Your task to perform on an android device: Toggle notifications for the Google Photos app Image 0: 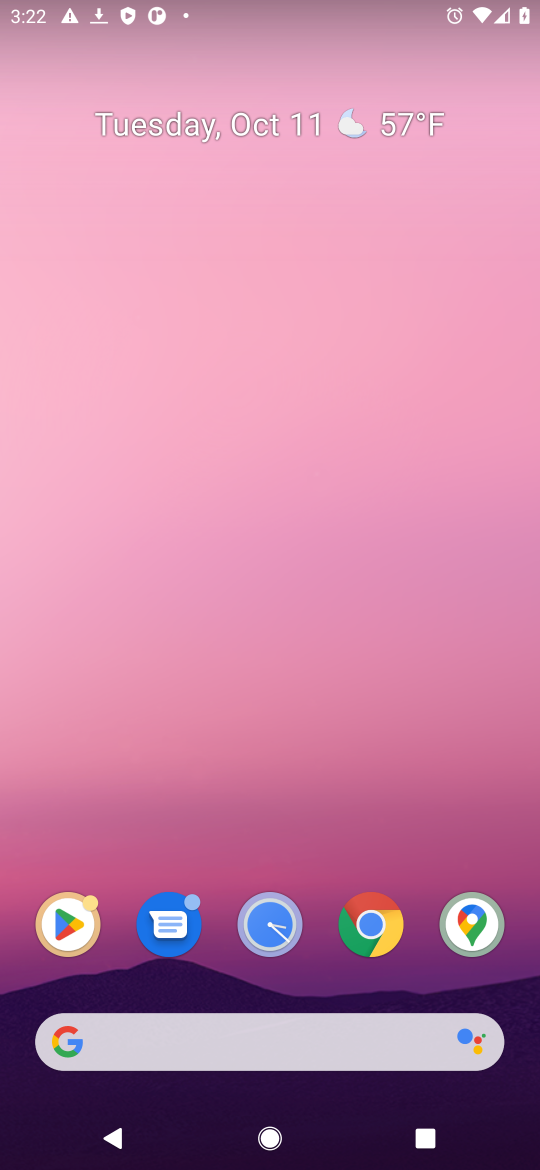
Step 0: drag from (326, 976) to (338, 16)
Your task to perform on an android device: Toggle notifications for the Google Photos app Image 1: 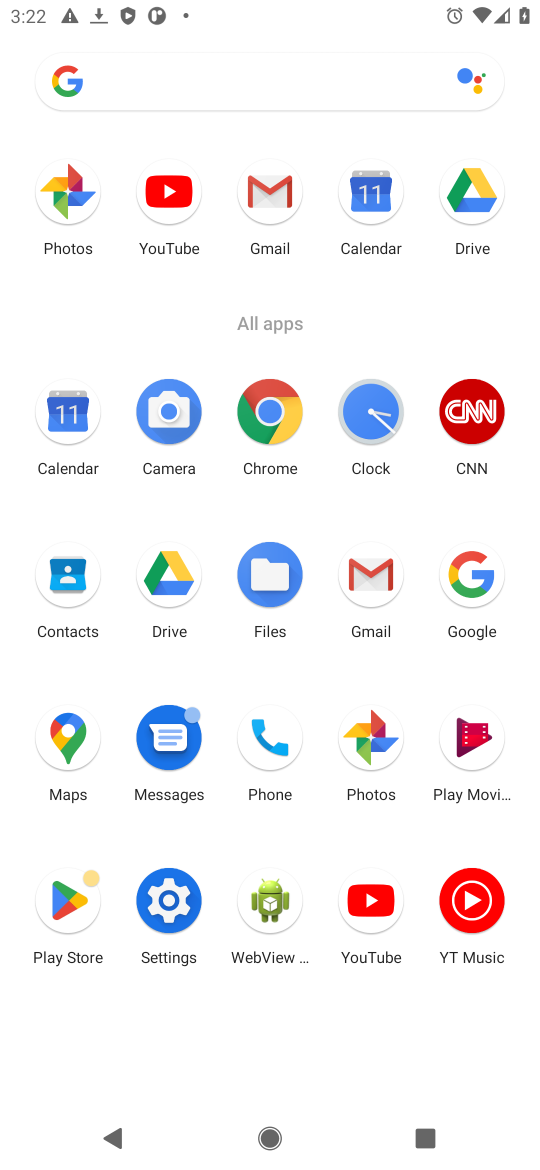
Step 1: click (375, 747)
Your task to perform on an android device: Toggle notifications for the Google Photos app Image 2: 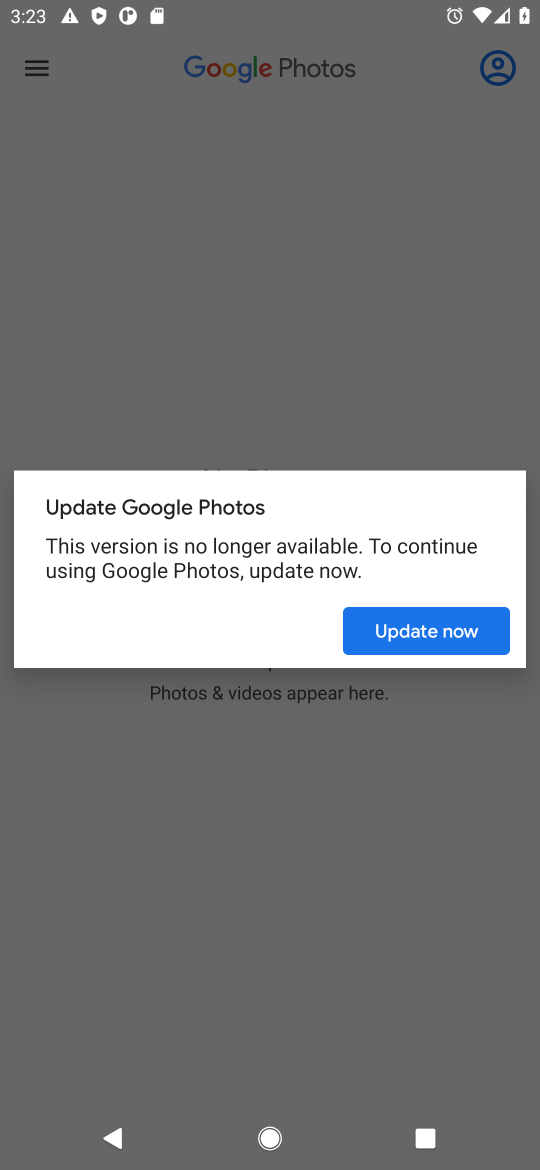
Step 2: press home button
Your task to perform on an android device: Toggle notifications for the Google Photos app Image 3: 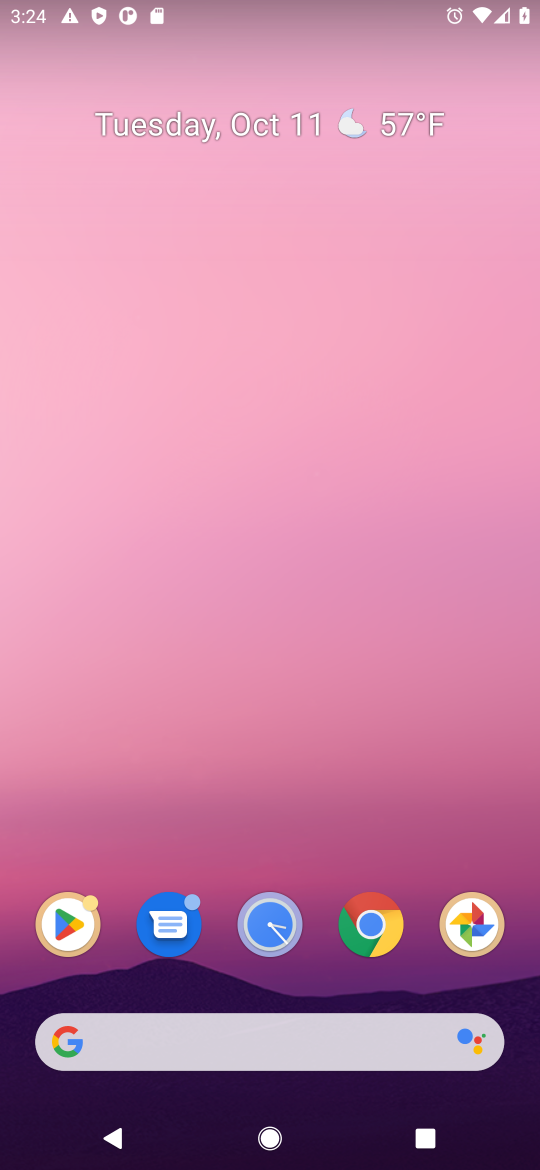
Step 3: drag from (334, 1006) to (374, 96)
Your task to perform on an android device: Toggle notifications for the Google Photos app Image 4: 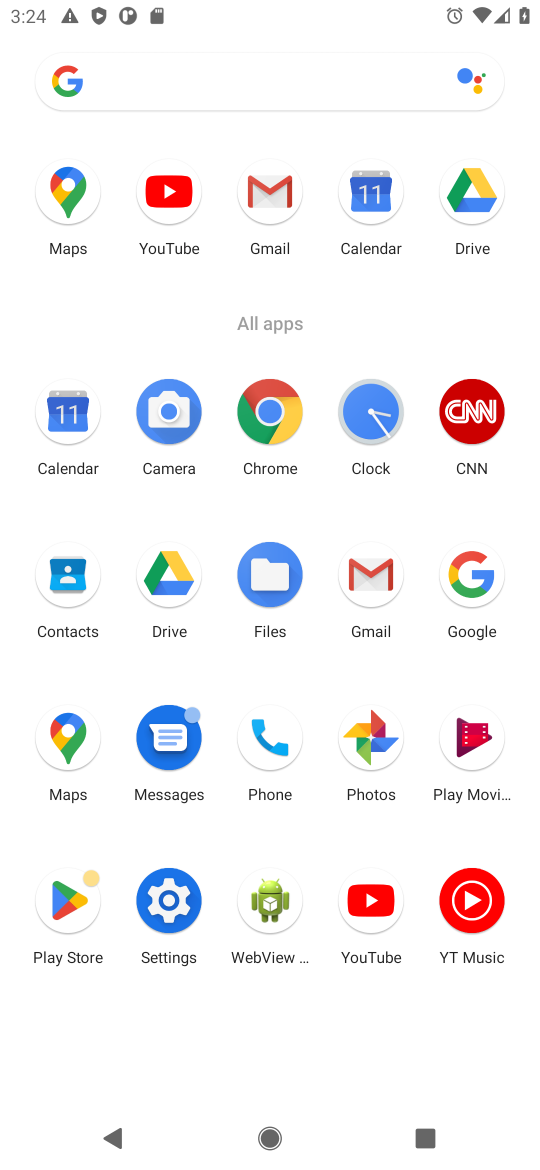
Step 4: click (373, 734)
Your task to perform on an android device: Toggle notifications for the Google Photos app Image 5: 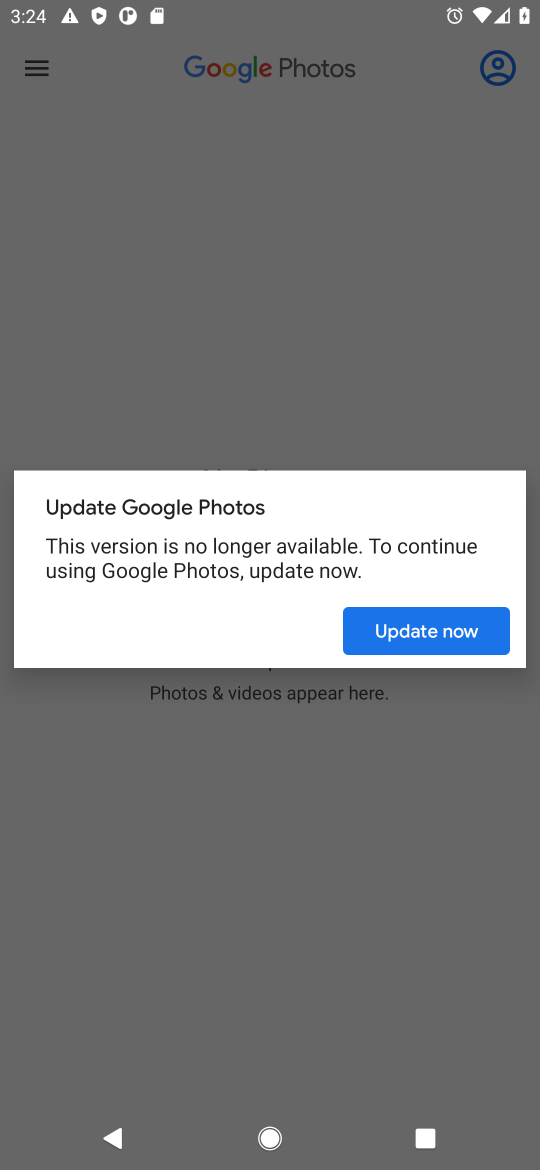
Step 5: click (281, 325)
Your task to perform on an android device: Toggle notifications for the Google Photos app Image 6: 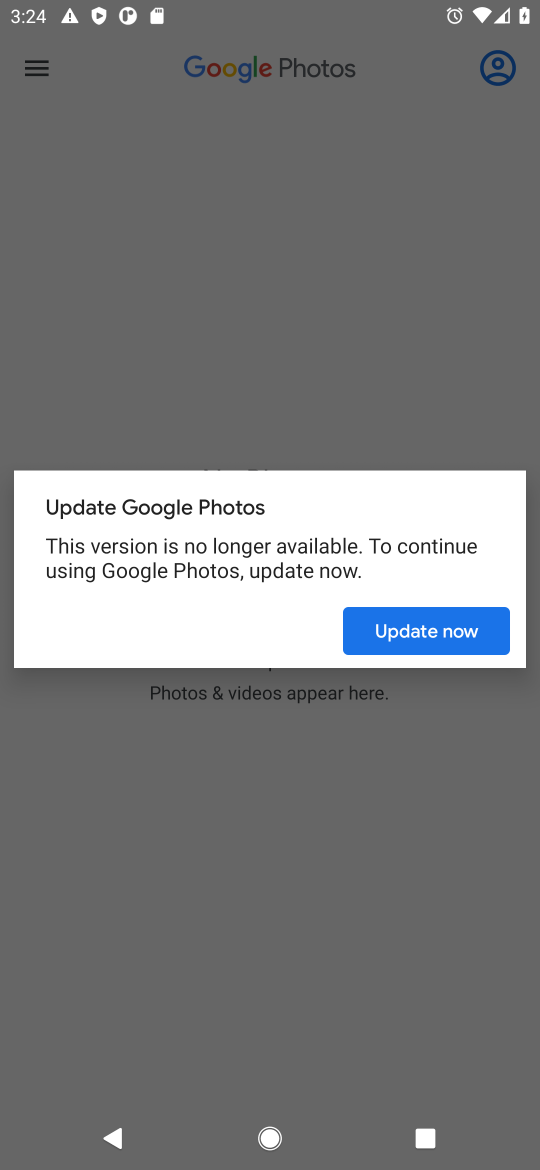
Step 6: task complete